Your task to perform on an android device: Open Google Maps and go to "Timeline" Image 0: 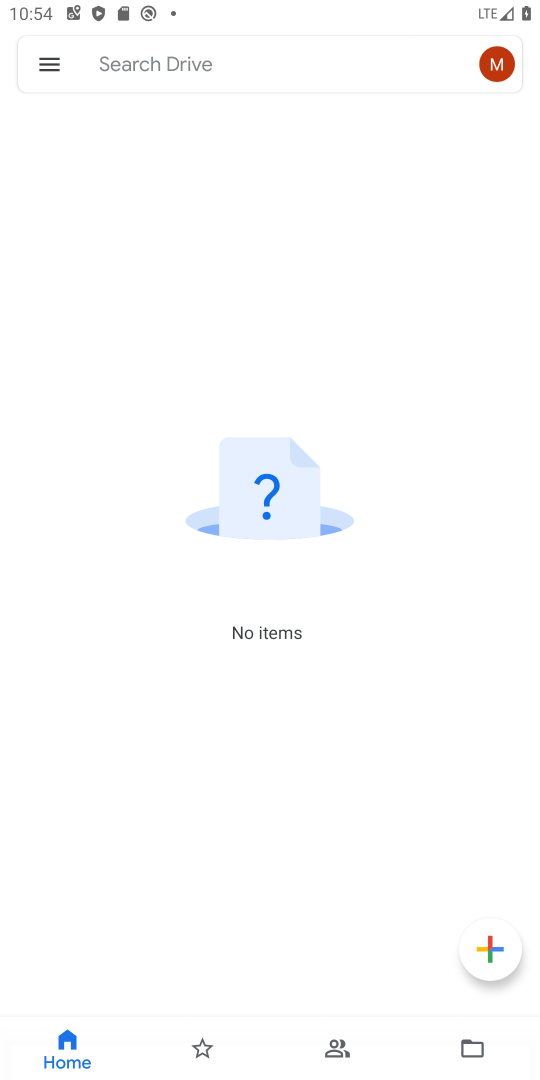
Step 0: press home button
Your task to perform on an android device: Open Google Maps and go to "Timeline" Image 1: 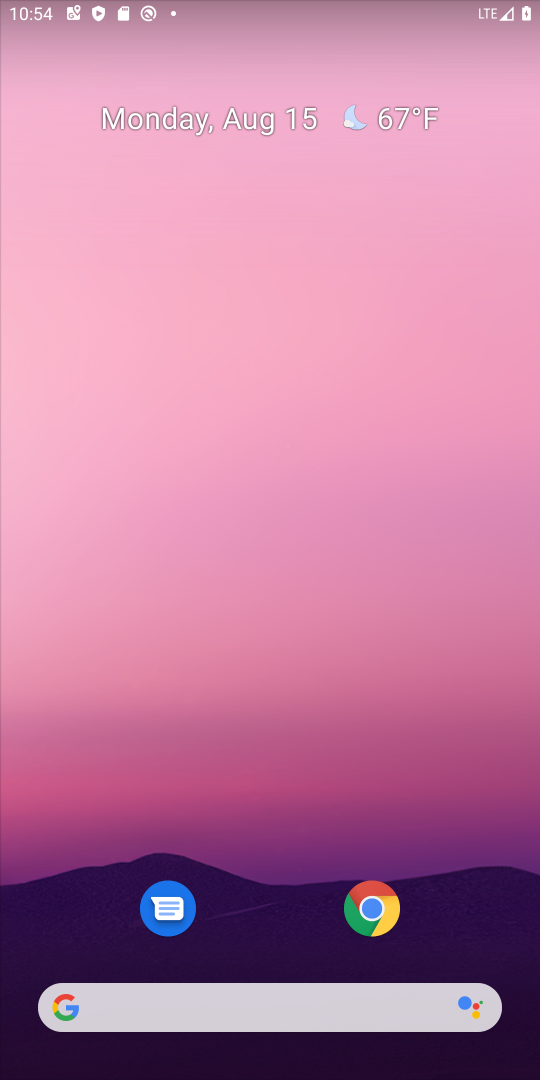
Step 1: drag from (37, 693) to (330, 908)
Your task to perform on an android device: Open Google Maps and go to "Timeline" Image 2: 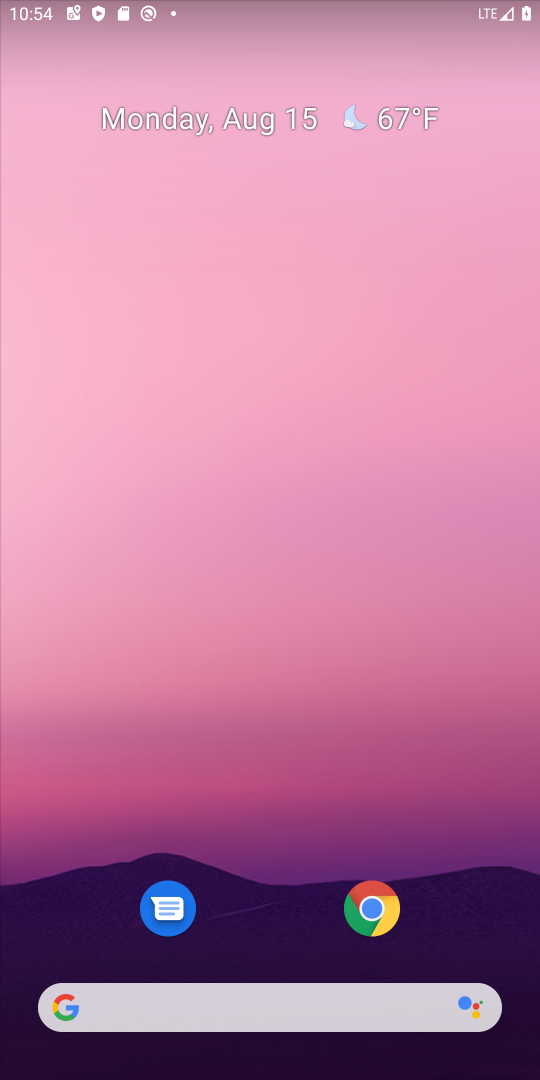
Step 2: drag from (340, 837) to (25, 750)
Your task to perform on an android device: Open Google Maps and go to "Timeline" Image 3: 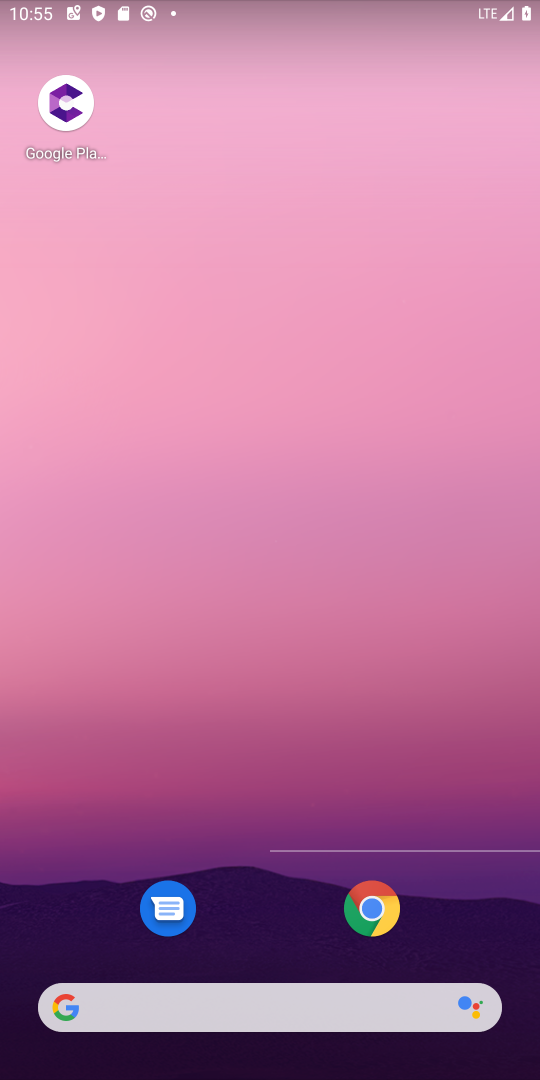
Step 3: drag from (238, 946) to (259, 83)
Your task to perform on an android device: Open Google Maps and go to "Timeline" Image 4: 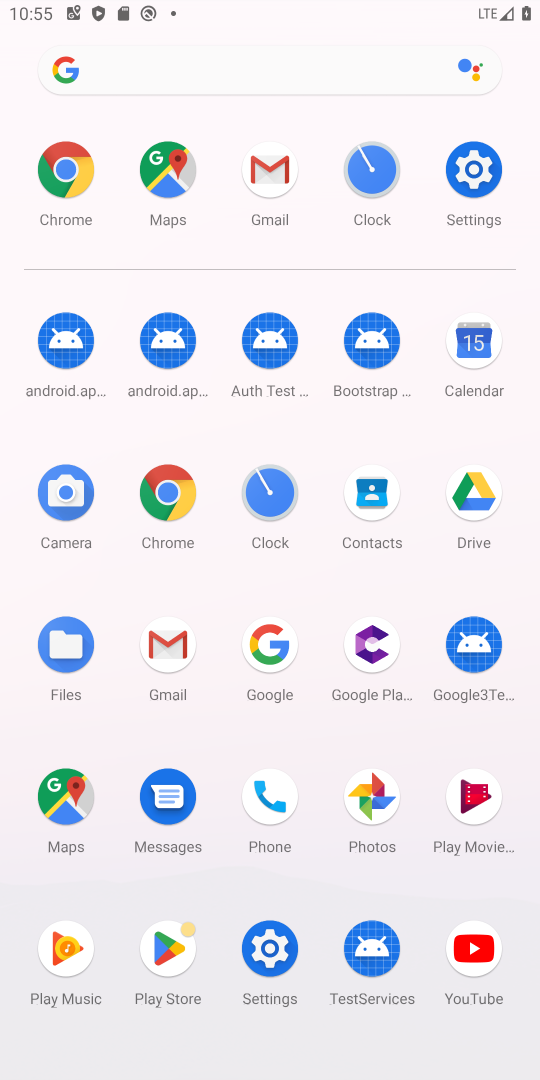
Step 4: click (181, 199)
Your task to perform on an android device: Open Google Maps and go to "Timeline" Image 5: 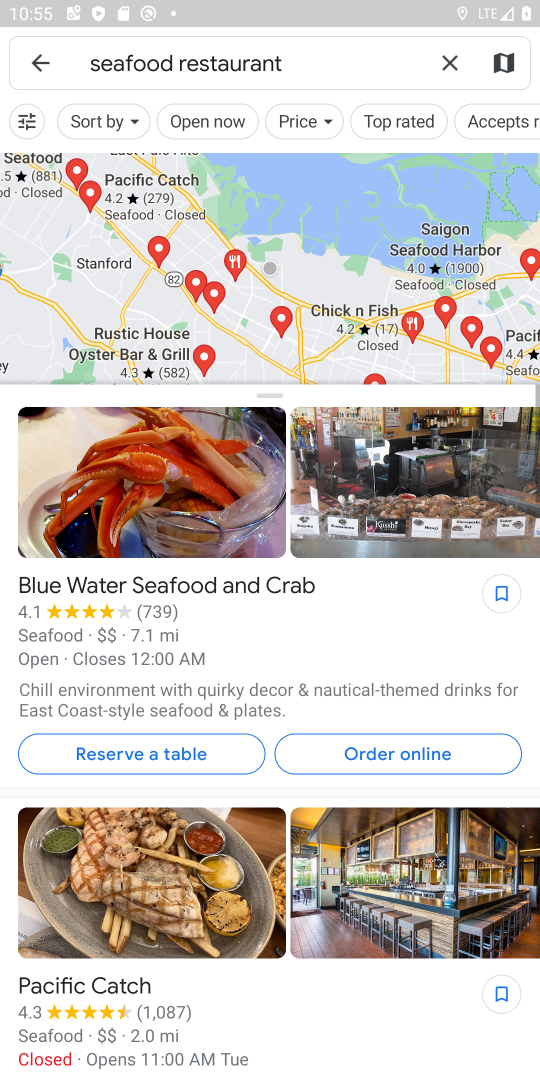
Step 5: click (32, 45)
Your task to perform on an android device: Open Google Maps and go to "Timeline" Image 6: 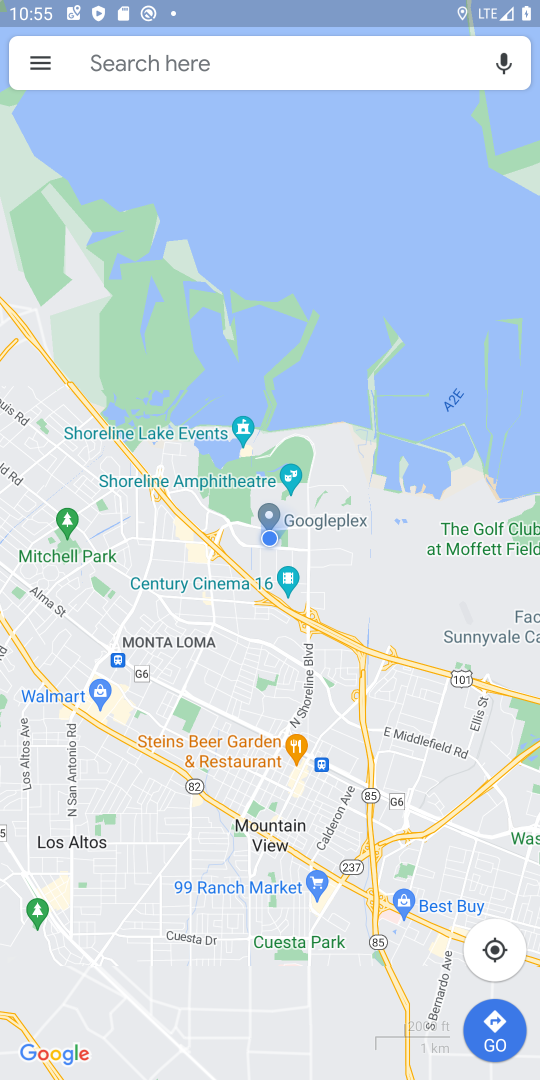
Step 6: click (43, 67)
Your task to perform on an android device: Open Google Maps and go to "Timeline" Image 7: 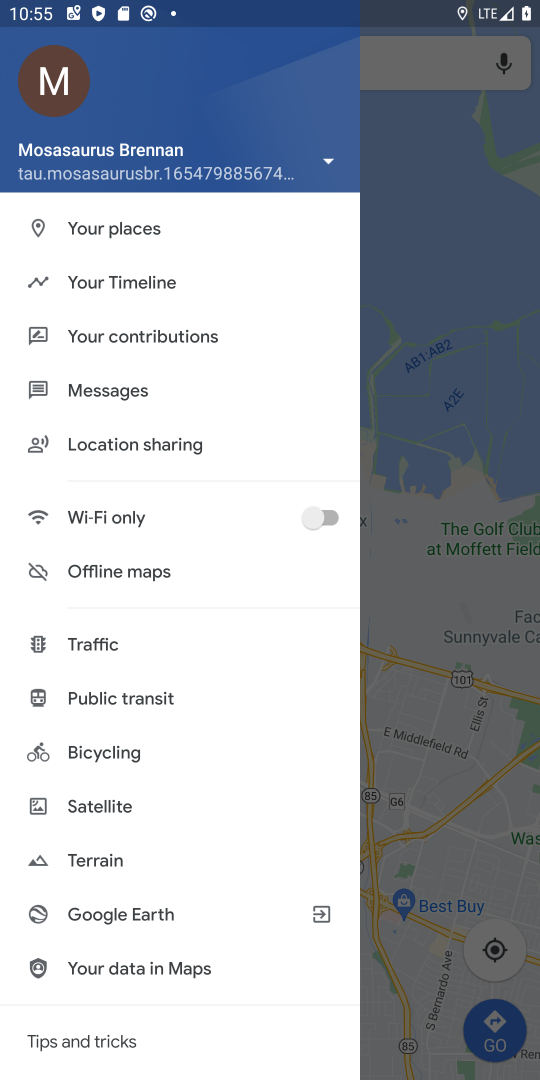
Step 7: click (122, 286)
Your task to perform on an android device: Open Google Maps and go to "Timeline" Image 8: 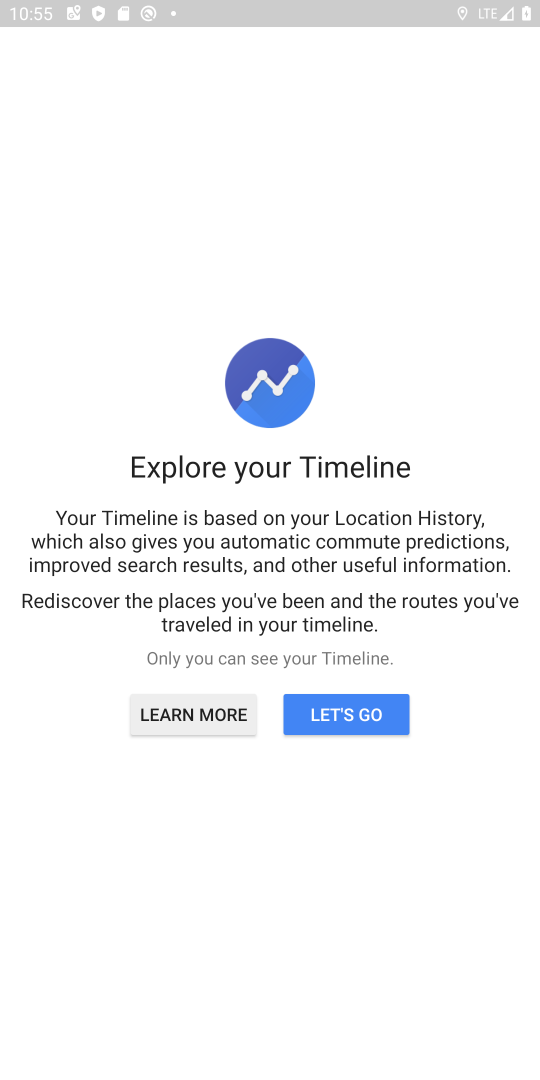
Step 8: click (299, 724)
Your task to perform on an android device: Open Google Maps and go to "Timeline" Image 9: 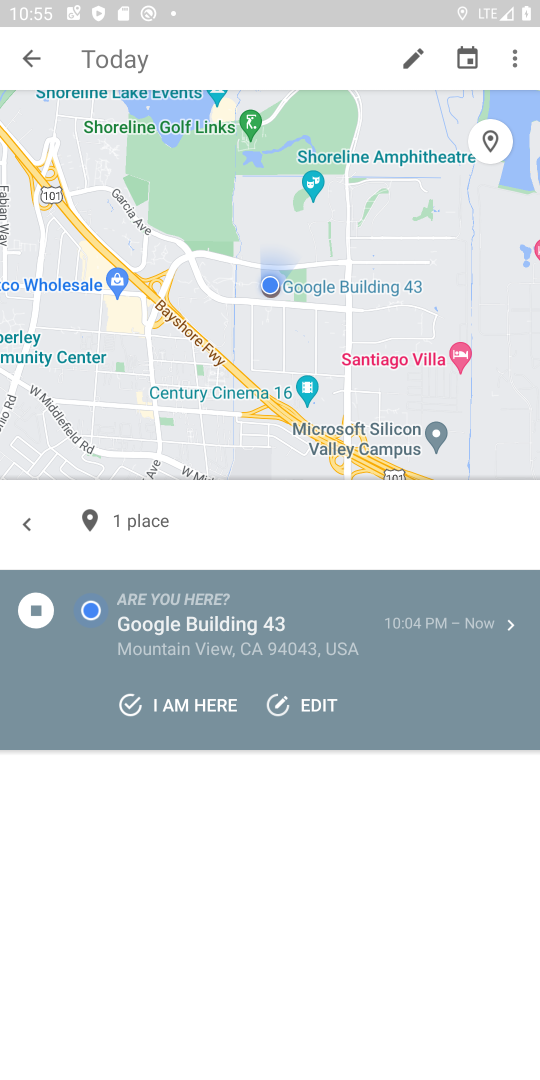
Step 9: task complete